Your task to perform on an android device: turn on showing notifications on the lock screen Image 0: 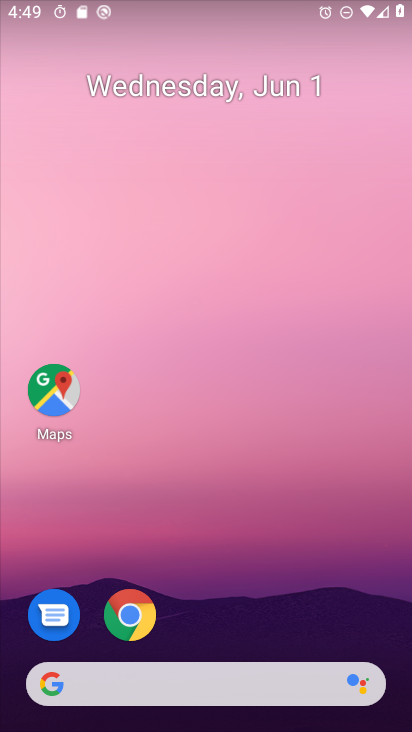
Step 0: drag from (259, 627) to (233, 235)
Your task to perform on an android device: turn on showing notifications on the lock screen Image 1: 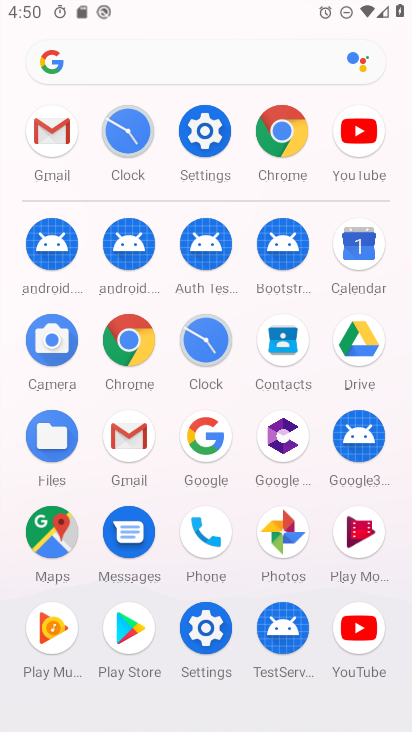
Step 1: click (202, 135)
Your task to perform on an android device: turn on showing notifications on the lock screen Image 2: 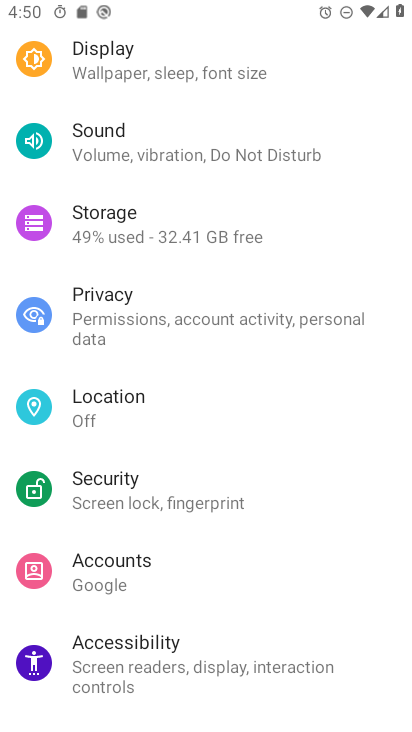
Step 2: drag from (256, 433) to (238, 212)
Your task to perform on an android device: turn on showing notifications on the lock screen Image 3: 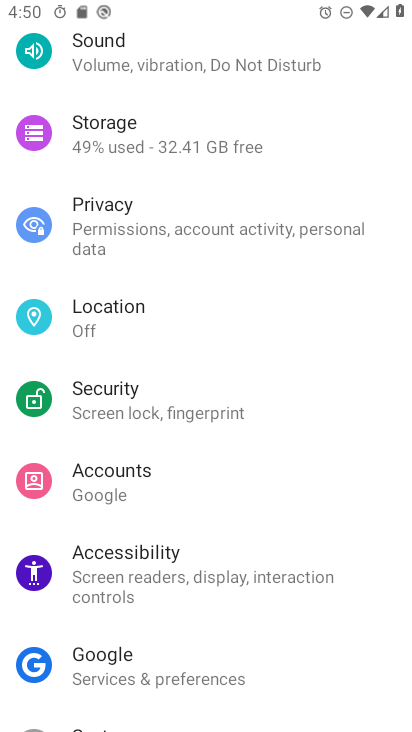
Step 3: drag from (306, 148) to (297, 427)
Your task to perform on an android device: turn on showing notifications on the lock screen Image 4: 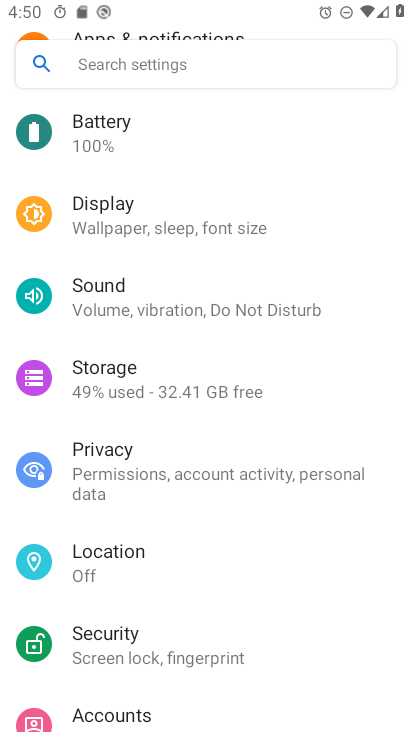
Step 4: drag from (301, 194) to (263, 512)
Your task to perform on an android device: turn on showing notifications on the lock screen Image 5: 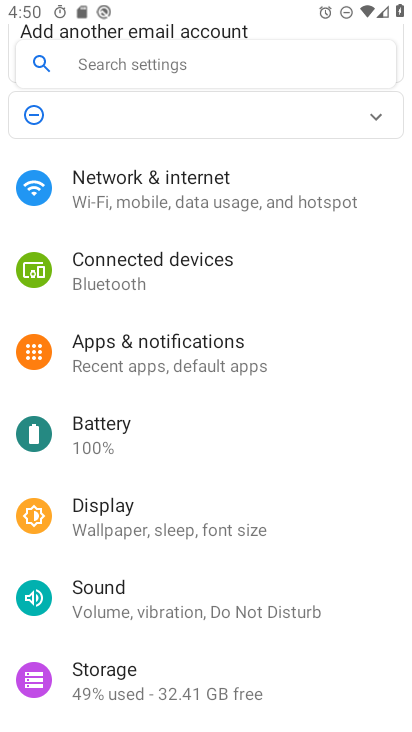
Step 5: click (195, 353)
Your task to perform on an android device: turn on showing notifications on the lock screen Image 6: 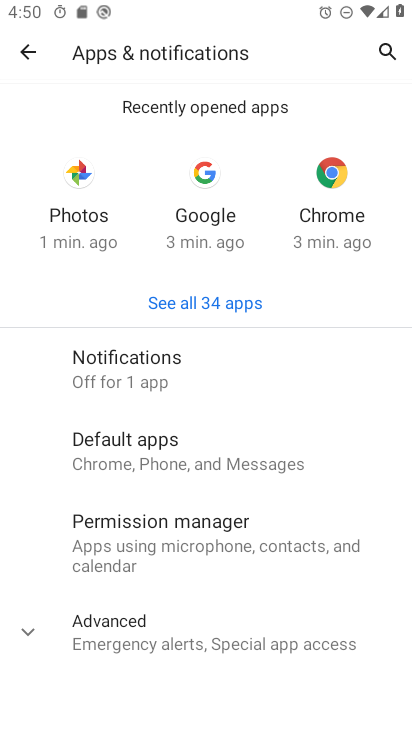
Step 6: click (155, 386)
Your task to perform on an android device: turn on showing notifications on the lock screen Image 7: 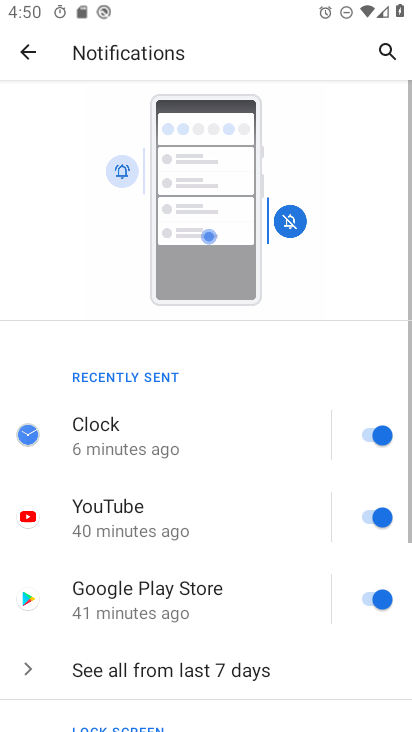
Step 7: drag from (286, 569) to (234, 303)
Your task to perform on an android device: turn on showing notifications on the lock screen Image 8: 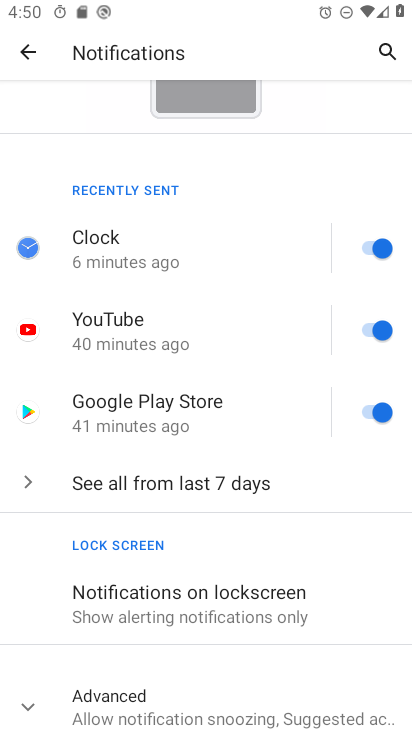
Step 8: click (261, 602)
Your task to perform on an android device: turn on showing notifications on the lock screen Image 9: 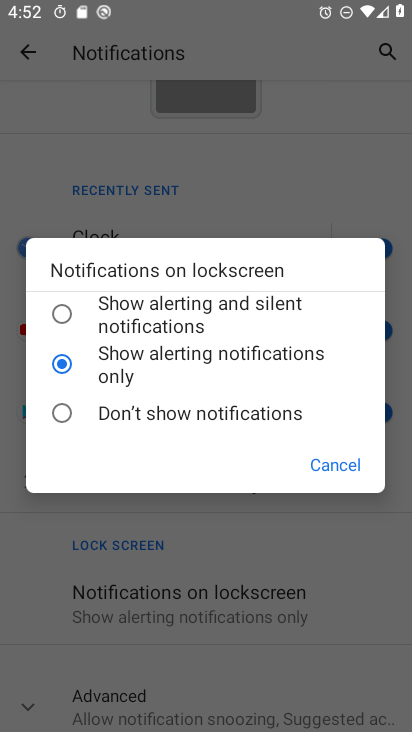
Step 9: click (72, 314)
Your task to perform on an android device: turn on showing notifications on the lock screen Image 10: 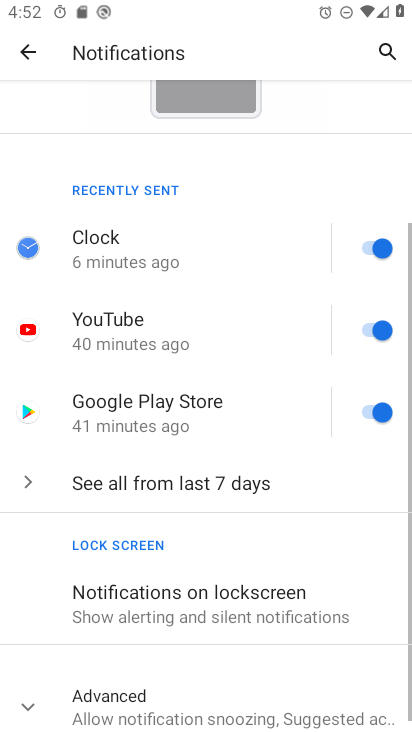
Step 10: task complete